Your task to perform on an android device: install app "Venmo" Image 0: 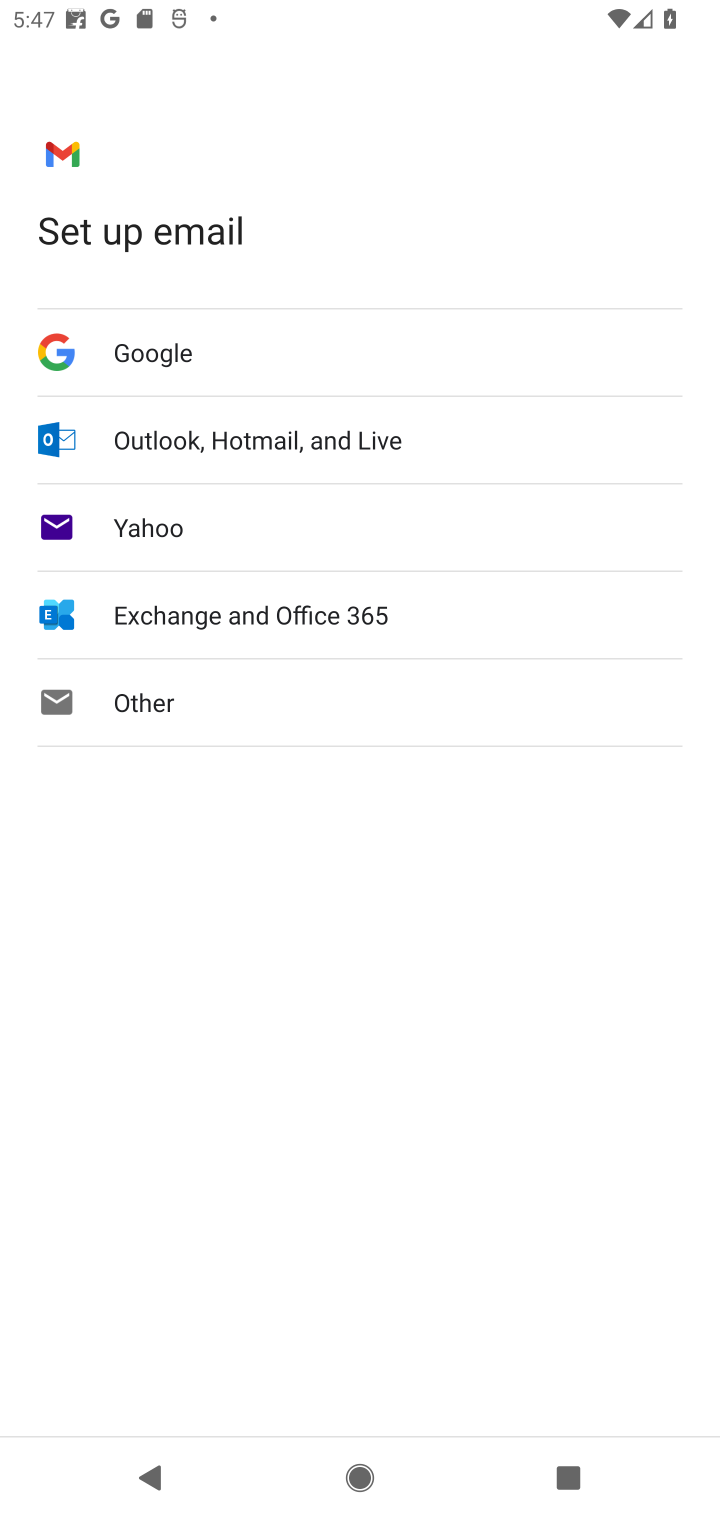
Step 0: press home button
Your task to perform on an android device: install app "Venmo" Image 1: 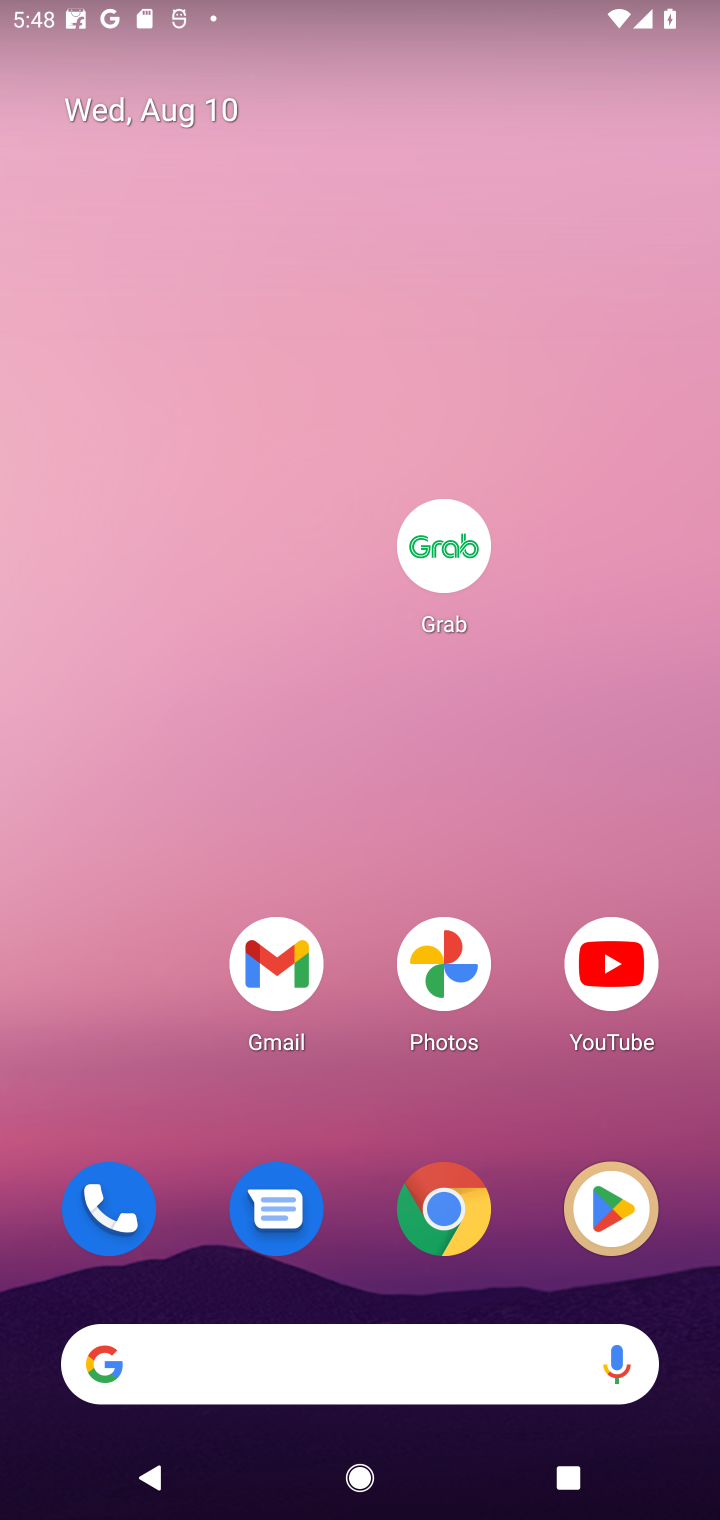
Step 1: click (643, 1212)
Your task to perform on an android device: install app "Venmo" Image 2: 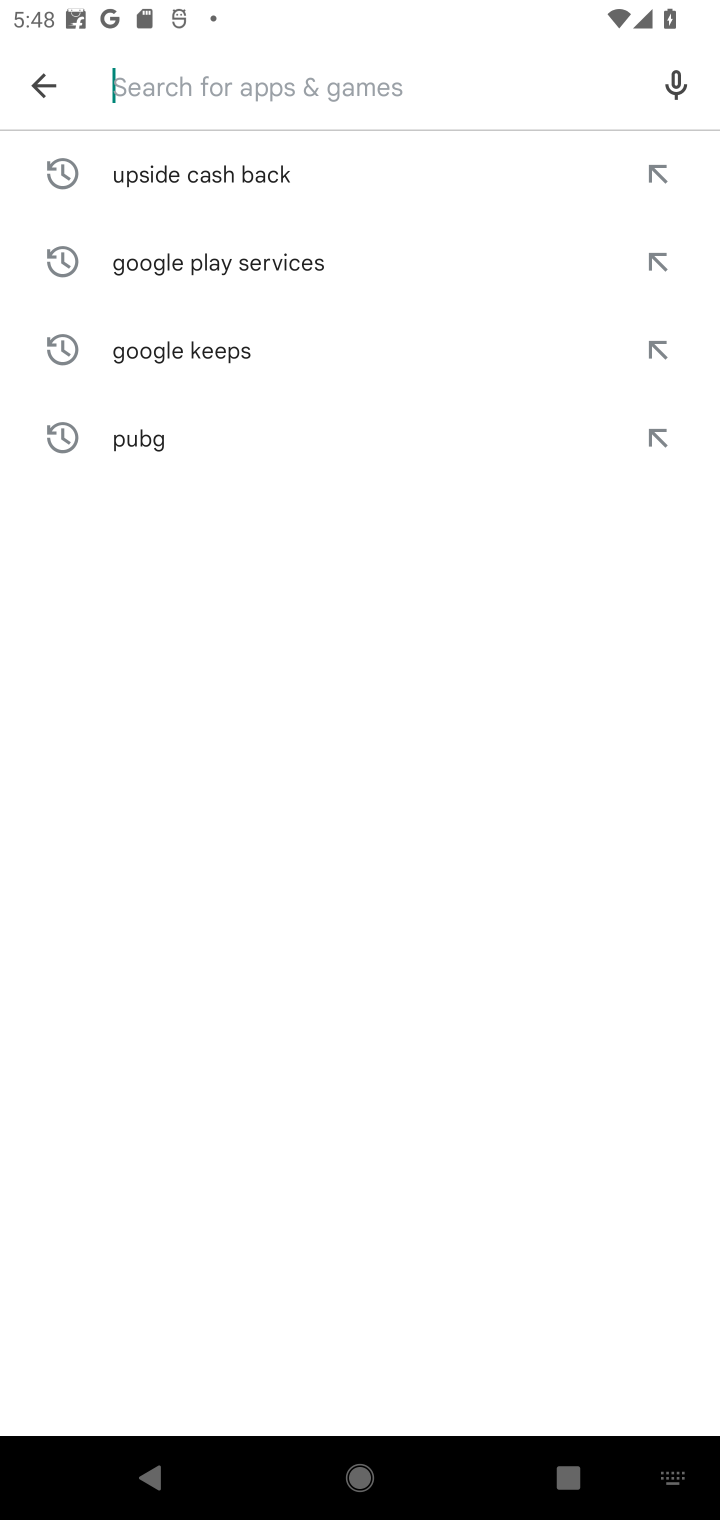
Step 2: type "venmo"
Your task to perform on an android device: install app "Venmo" Image 3: 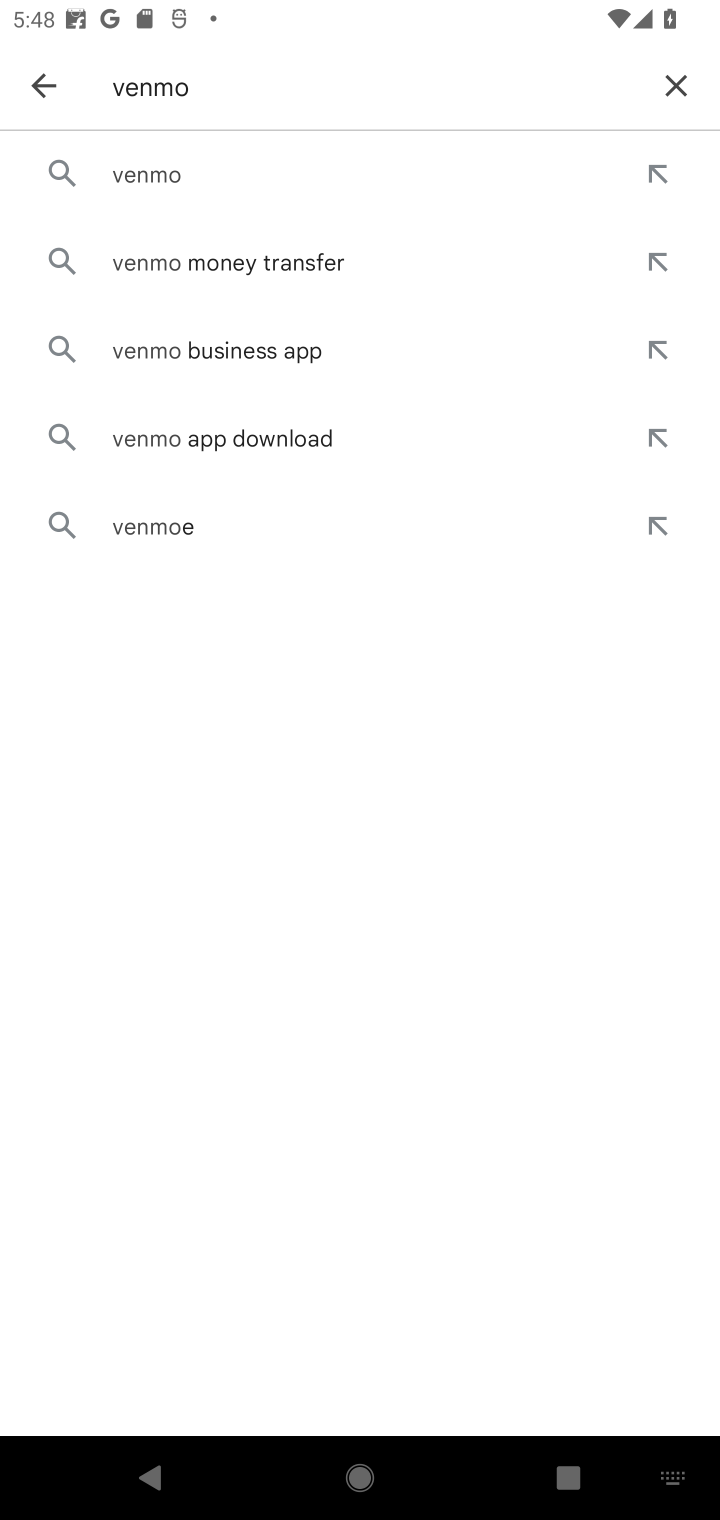
Step 3: click (163, 144)
Your task to perform on an android device: install app "Venmo" Image 4: 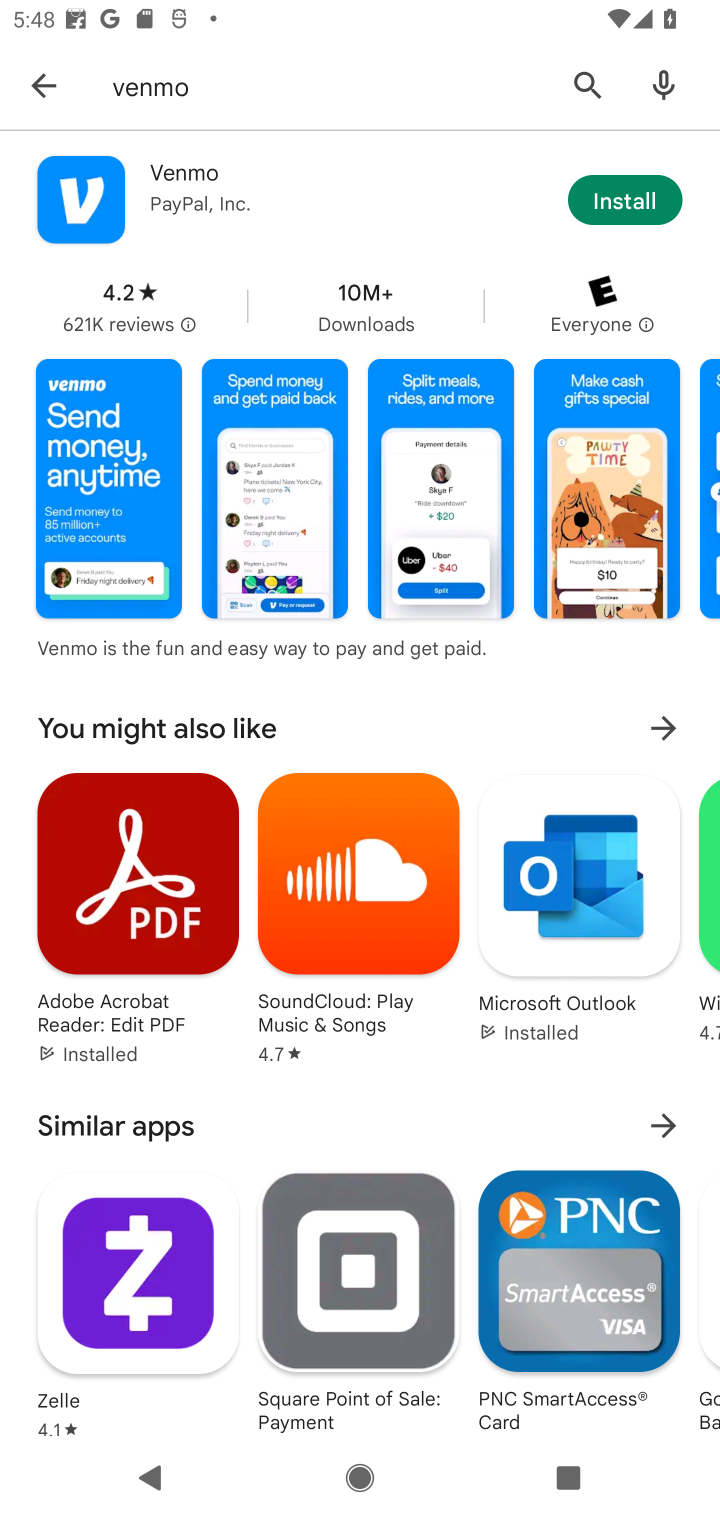
Step 4: click (604, 218)
Your task to perform on an android device: install app "Venmo" Image 5: 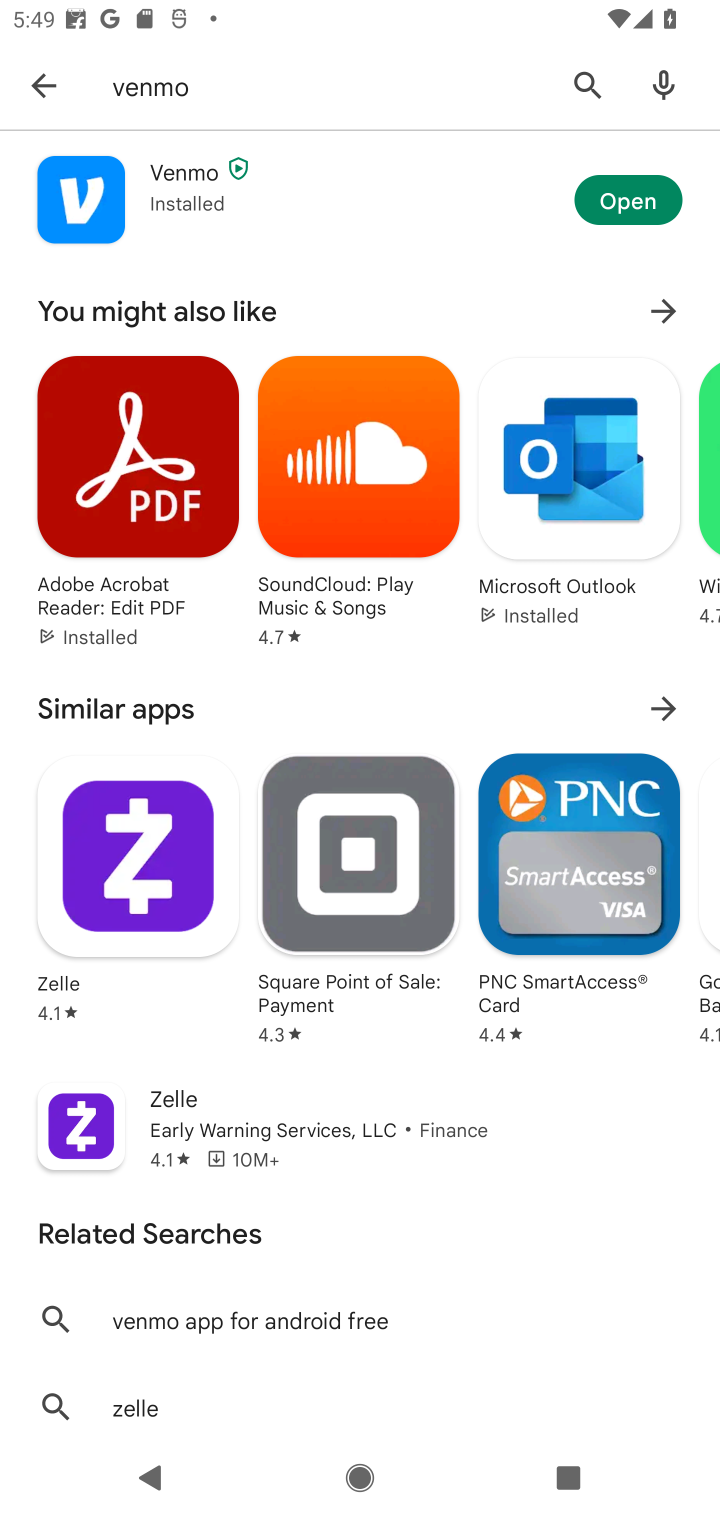
Step 5: click (622, 211)
Your task to perform on an android device: install app "Venmo" Image 6: 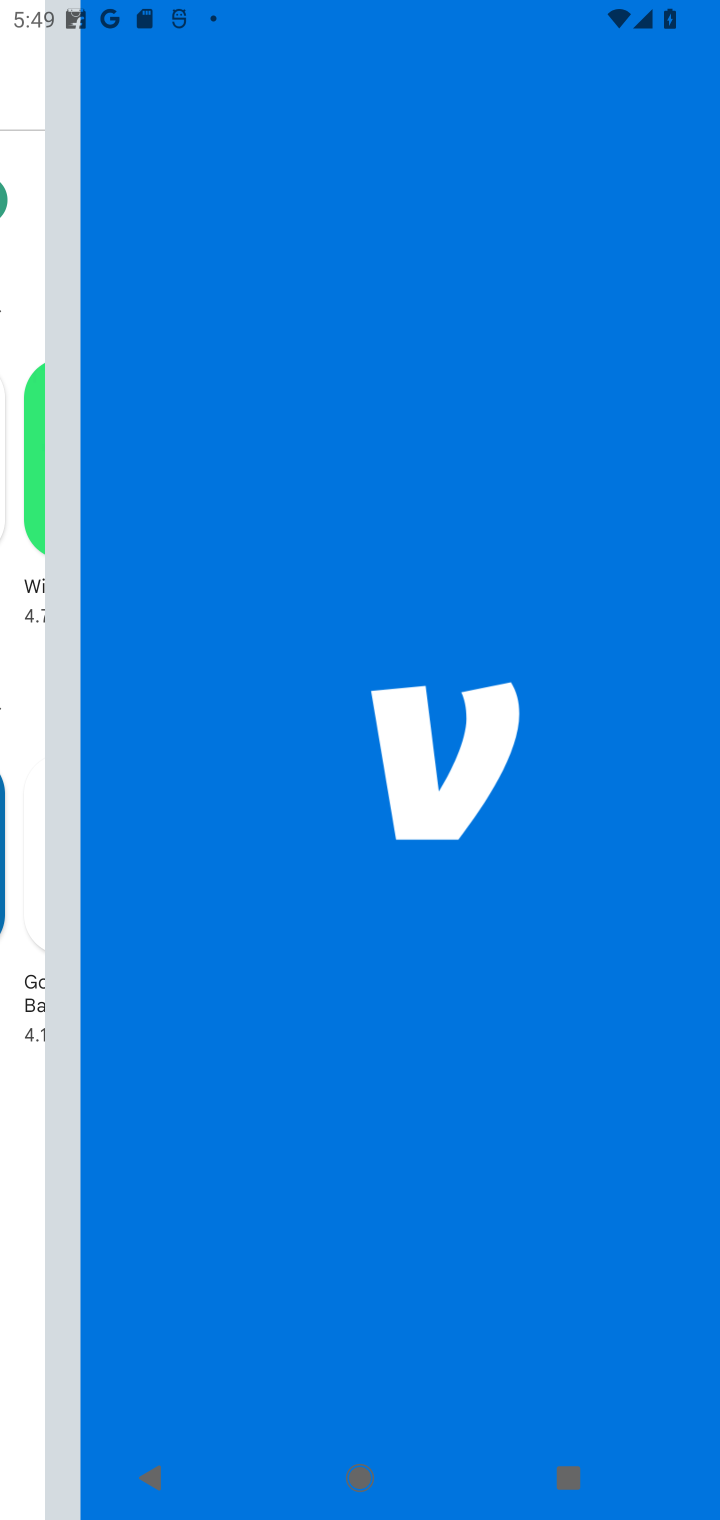
Step 6: task complete